Your task to perform on an android device: open device folders in google photos Image 0: 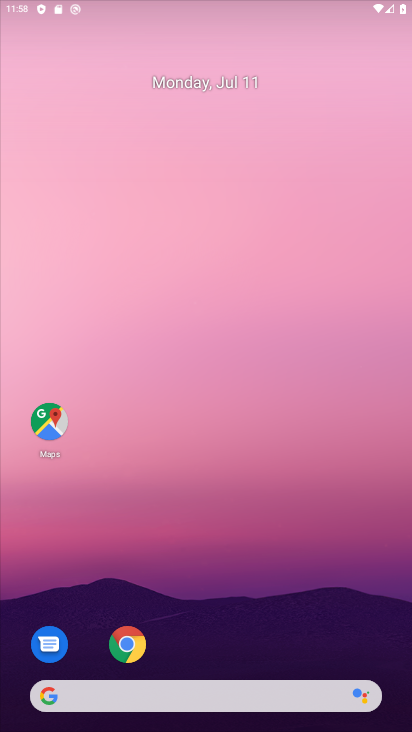
Step 0: drag from (30, 713) to (215, 9)
Your task to perform on an android device: open device folders in google photos Image 1: 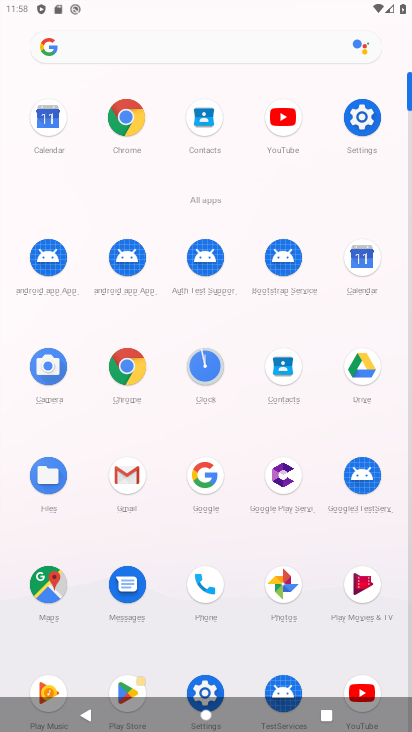
Step 1: click (348, 260)
Your task to perform on an android device: open device folders in google photos Image 2: 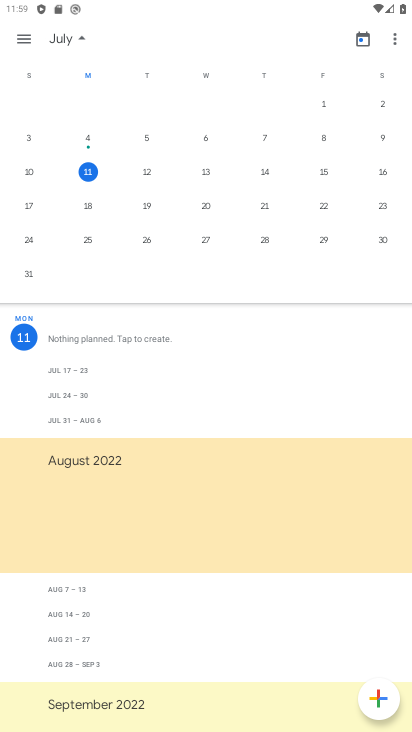
Step 2: press home button
Your task to perform on an android device: open device folders in google photos Image 3: 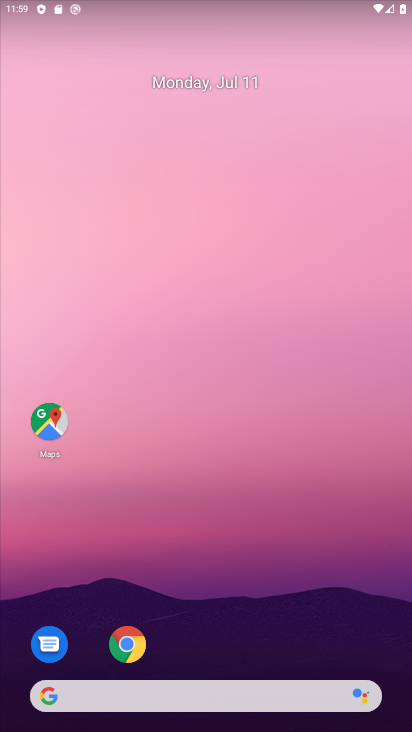
Step 3: drag from (138, 353) to (177, 192)
Your task to perform on an android device: open device folders in google photos Image 4: 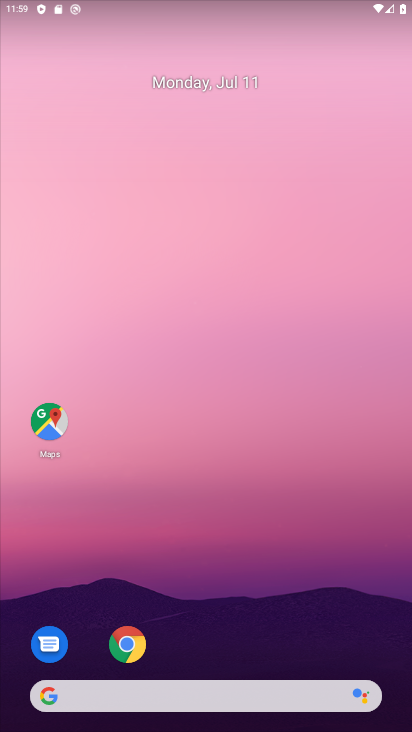
Step 4: drag from (156, 404) to (325, 25)
Your task to perform on an android device: open device folders in google photos Image 5: 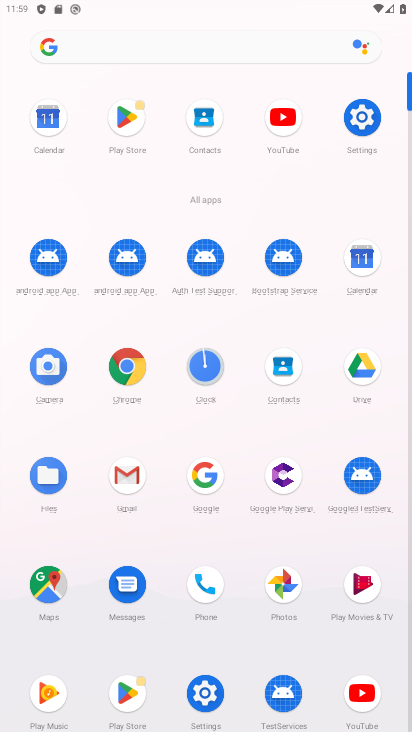
Step 5: click (287, 584)
Your task to perform on an android device: open device folders in google photos Image 6: 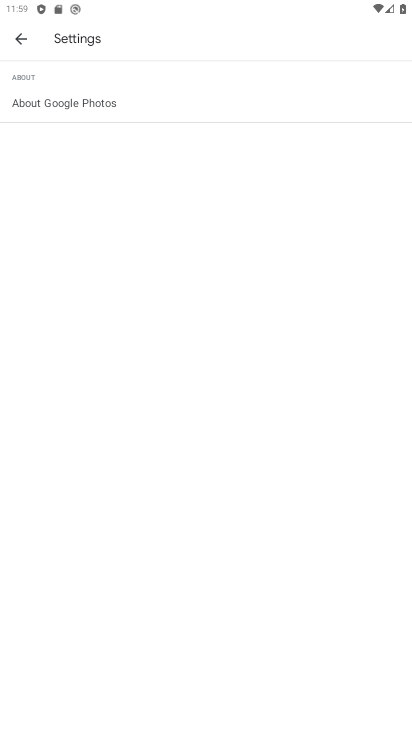
Step 6: click (11, 37)
Your task to perform on an android device: open device folders in google photos Image 7: 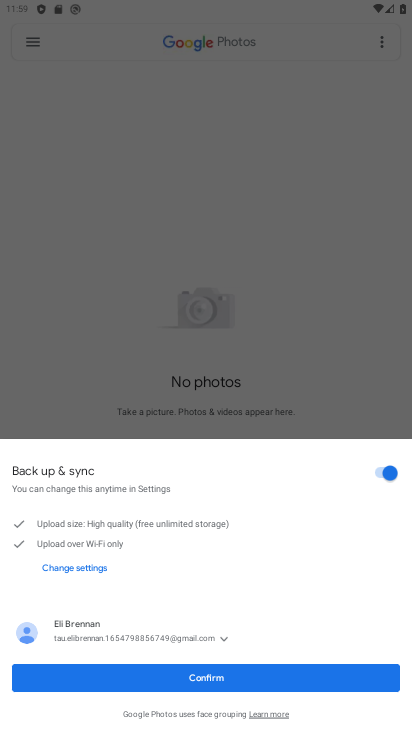
Step 7: click (113, 679)
Your task to perform on an android device: open device folders in google photos Image 8: 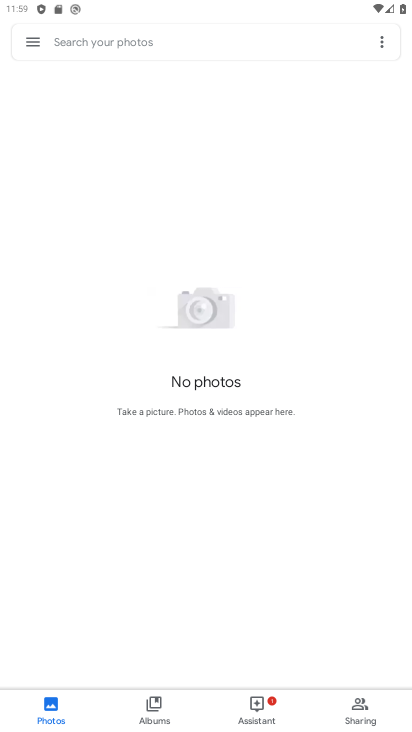
Step 8: task complete